Your task to perform on an android device: Find coffee shops on Maps Image 0: 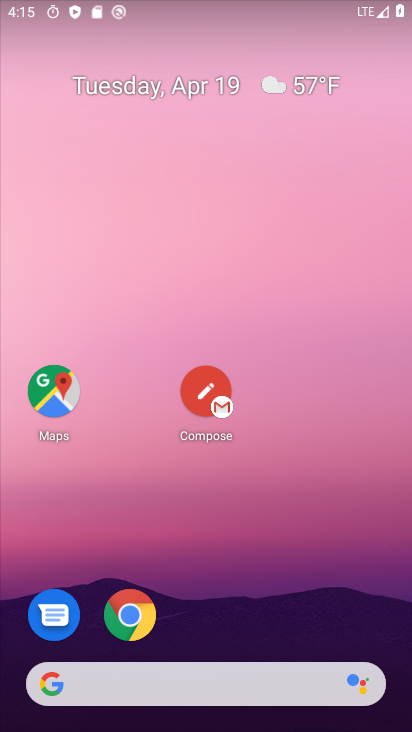
Step 0: drag from (261, 590) to (290, 134)
Your task to perform on an android device: Find coffee shops on Maps Image 1: 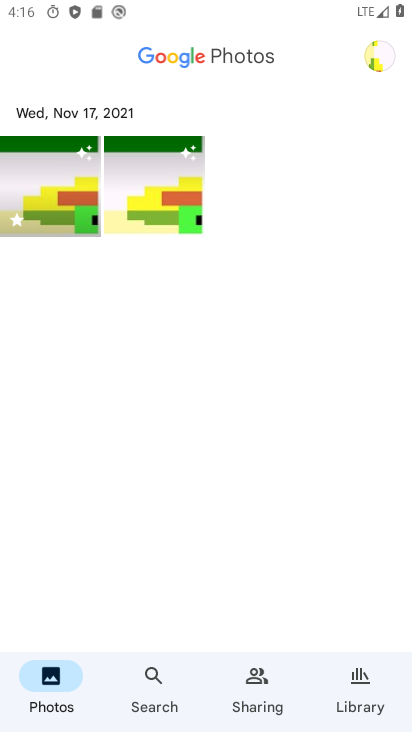
Step 1: press home button
Your task to perform on an android device: Find coffee shops on Maps Image 2: 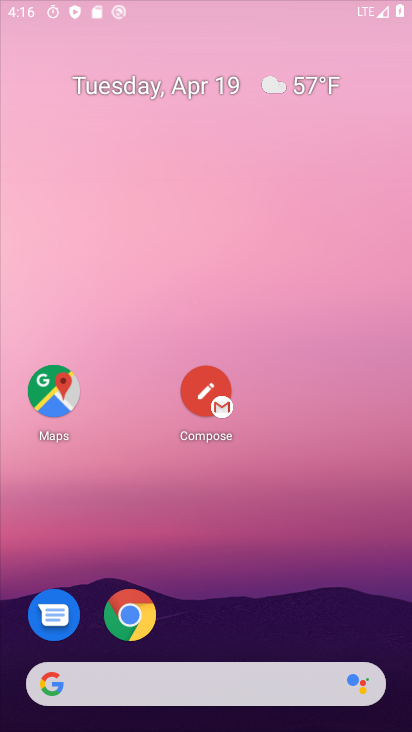
Step 2: drag from (300, 639) to (304, 84)
Your task to perform on an android device: Find coffee shops on Maps Image 3: 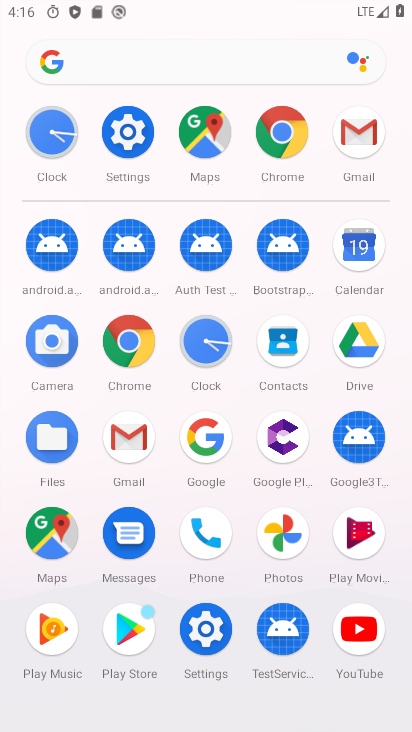
Step 3: click (45, 555)
Your task to perform on an android device: Find coffee shops on Maps Image 4: 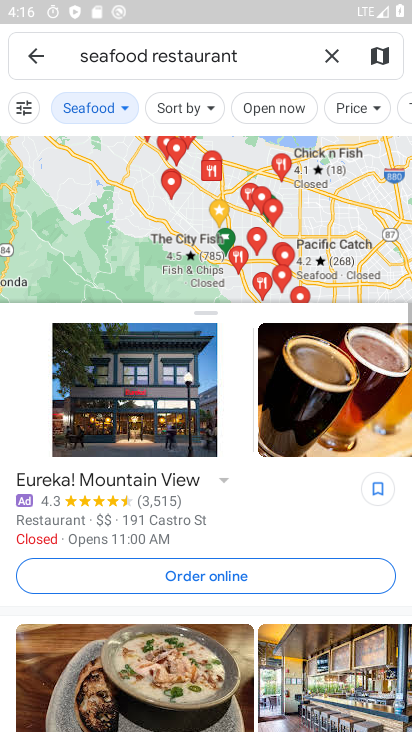
Step 4: click (334, 59)
Your task to perform on an android device: Find coffee shops on Maps Image 5: 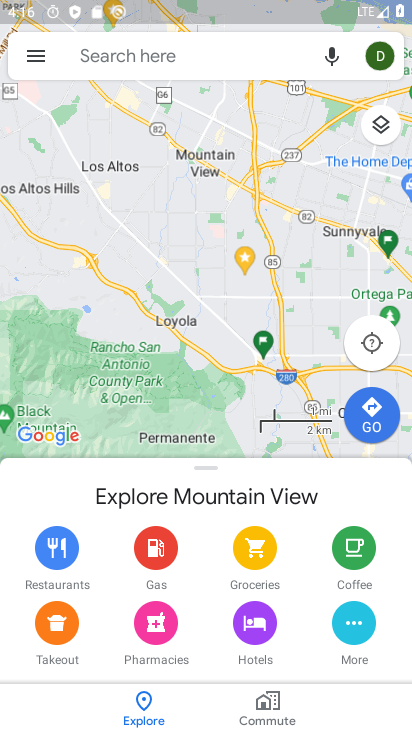
Step 5: click (281, 65)
Your task to perform on an android device: Find coffee shops on Maps Image 6: 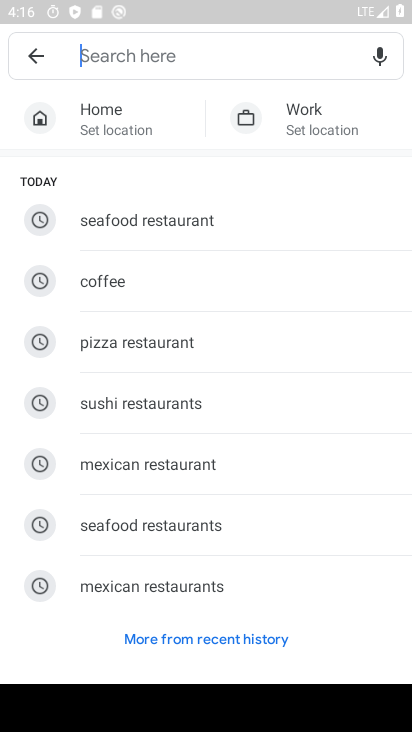
Step 6: type "coffee shops"
Your task to perform on an android device: Find coffee shops on Maps Image 7: 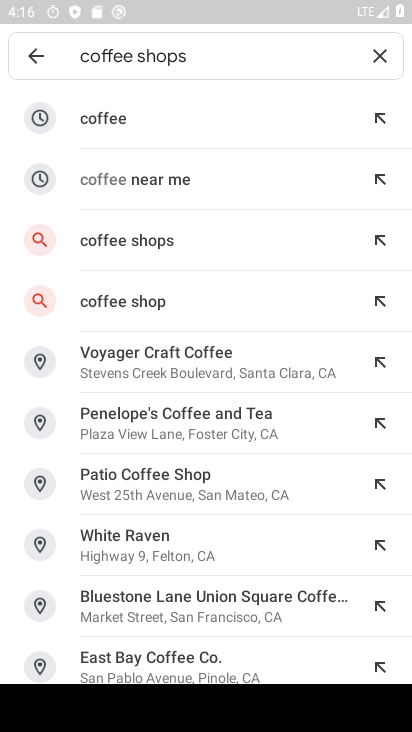
Step 7: click (196, 247)
Your task to perform on an android device: Find coffee shops on Maps Image 8: 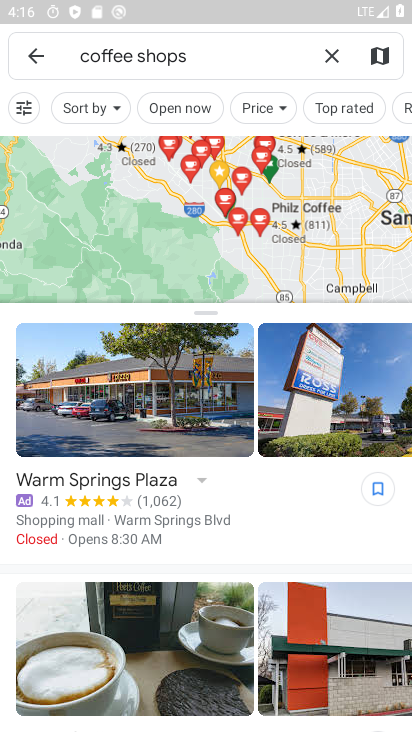
Step 8: task complete